Your task to perform on an android device: Open location settings Image 0: 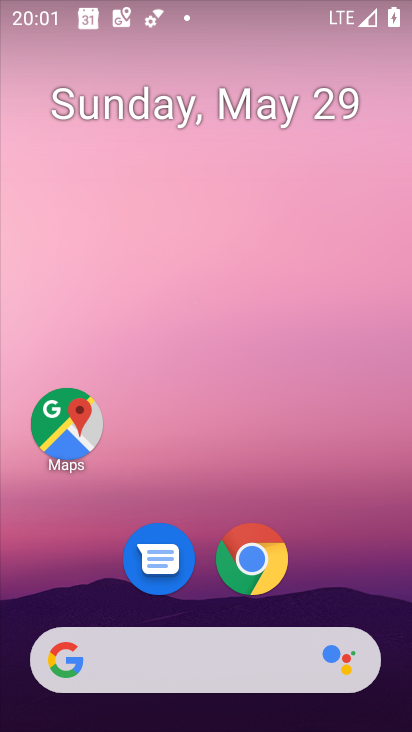
Step 0: drag from (387, 607) to (388, 140)
Your task to perform on an android device: Open location settings Image 1: 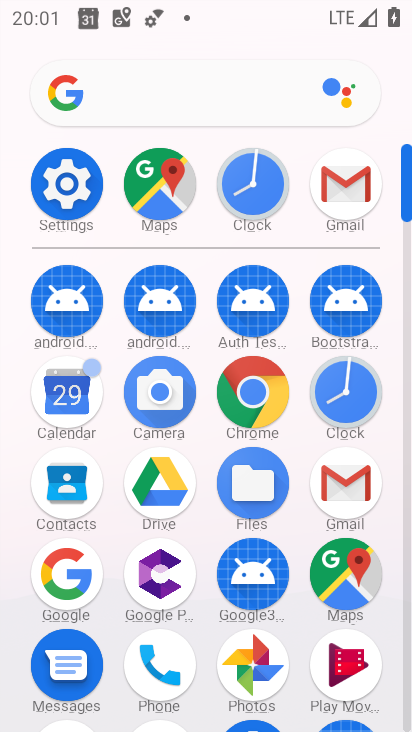
Step 1: click (68, 196)
Your task to perform on an android device: Open location settings Image 2: 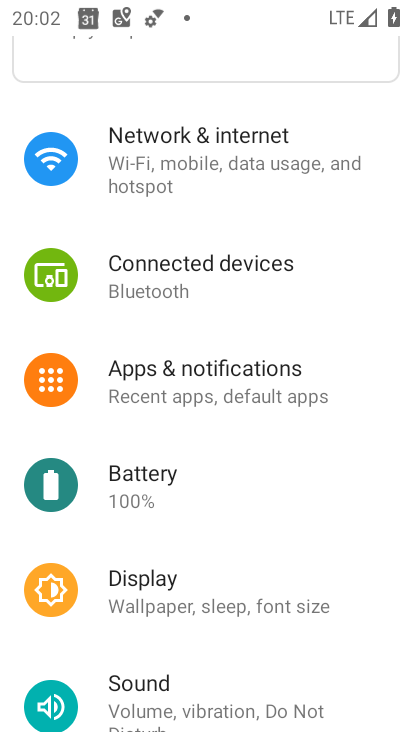
Step 2: drag from (393, 507) to (399, 350)
Your task to perform on an android device: Open location settings Image 3: 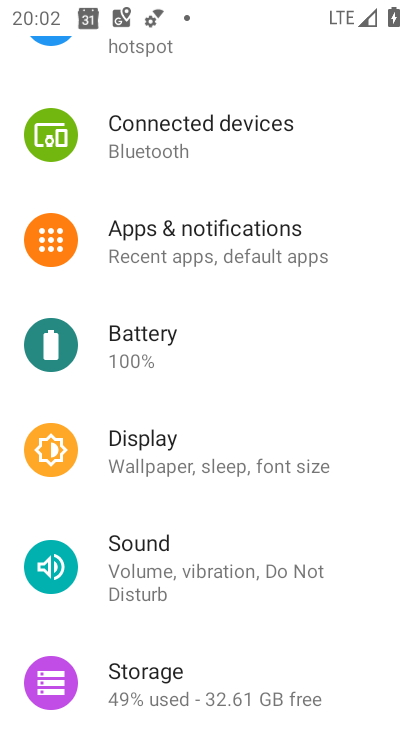
Step 3: drag from (374, 534) to (345, 360)
Your task to perform on an android device: Open location settings Image 4: 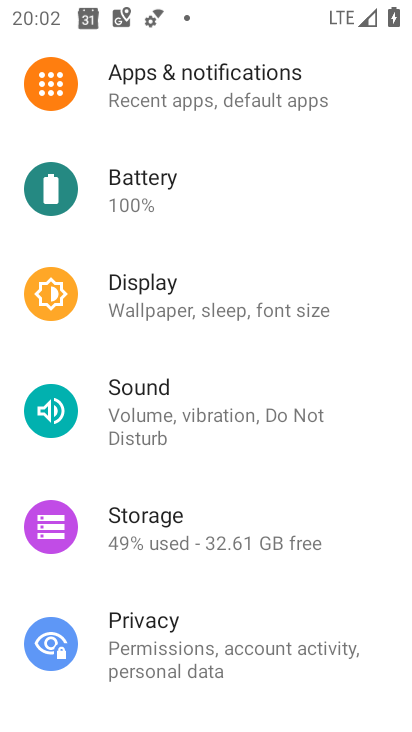
Step 4: drag from (347, 508) to (366, 387)
Your task to perform on an android device: Open location settings Image 5: 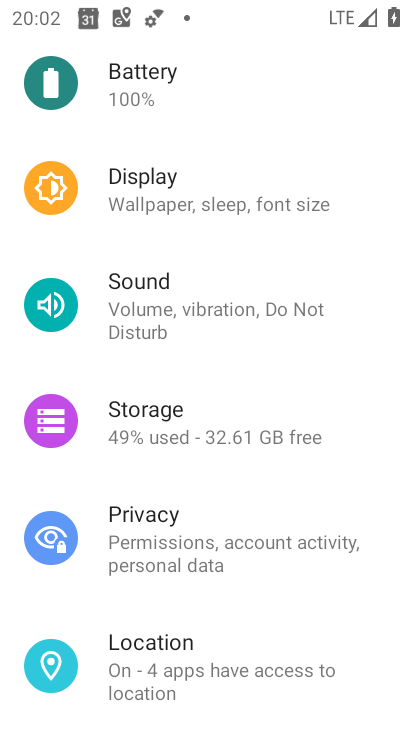
Step 5: drag from (370, 537) to (383, 338)
Your task to perform on an android device: Open location settings Image 6: 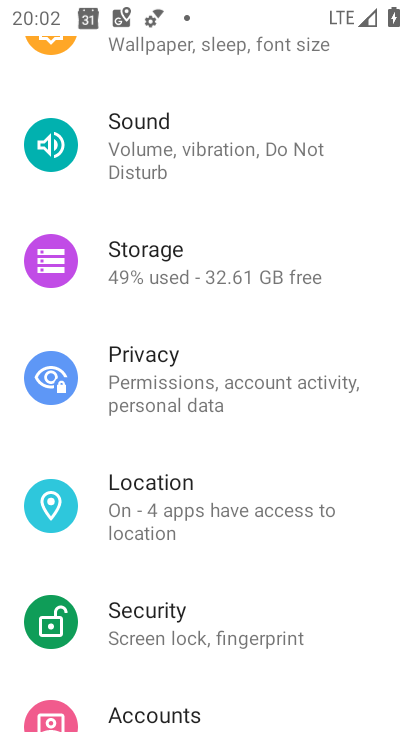
Step 6: drag from (377, 565) to (385, 300)
Your task to perform on an android device: Open location settings Image 7: 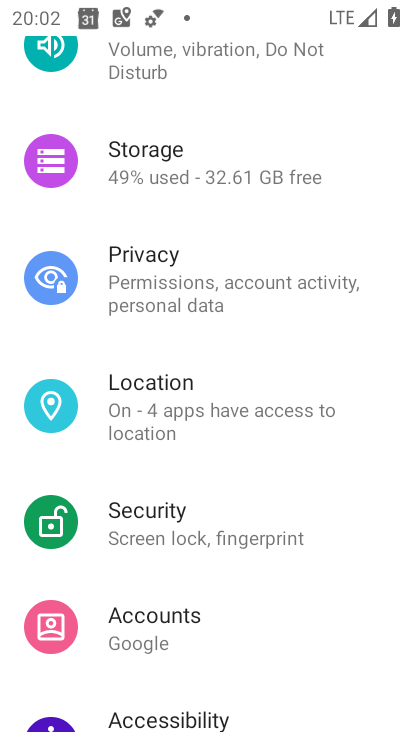
Step 7: click (239, 433)
Your task to perform on an android device: Open location settings Image 8: 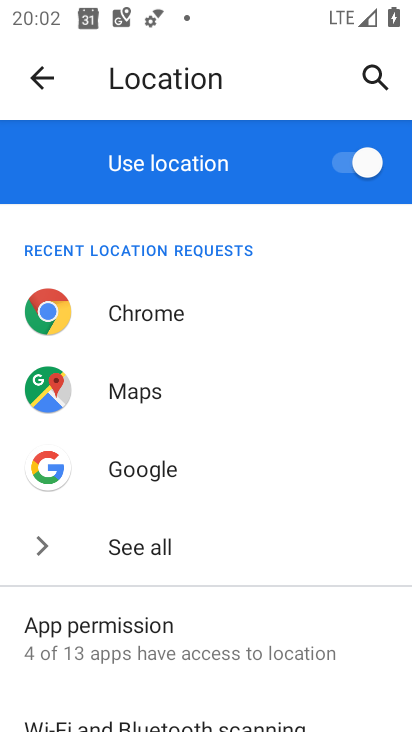
Step 8: task complete